Your task to perform on an android device: turn off data saver in the chrome app Image 0: 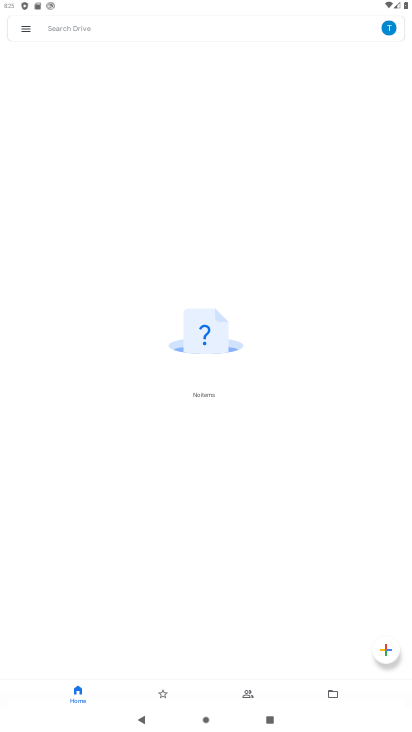
Step 0: press home button
Your task to perform on an android device: turn off data saver in the chrome app Image 1: 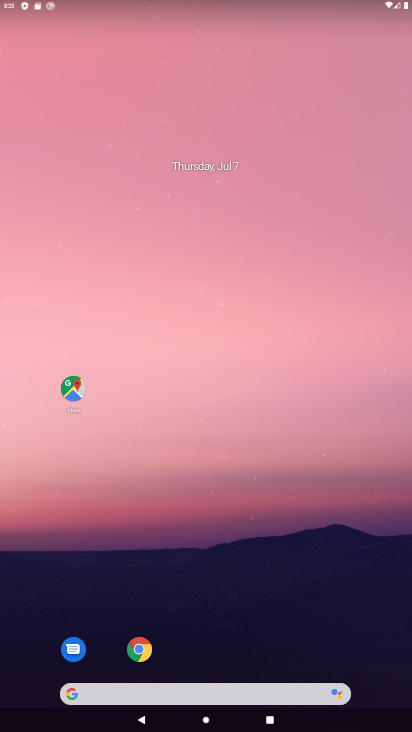
Step 1: drag from (134, 653) to (255, 110)
Your task to perform on an android device: turn off data saver in the chrome app Image 2: 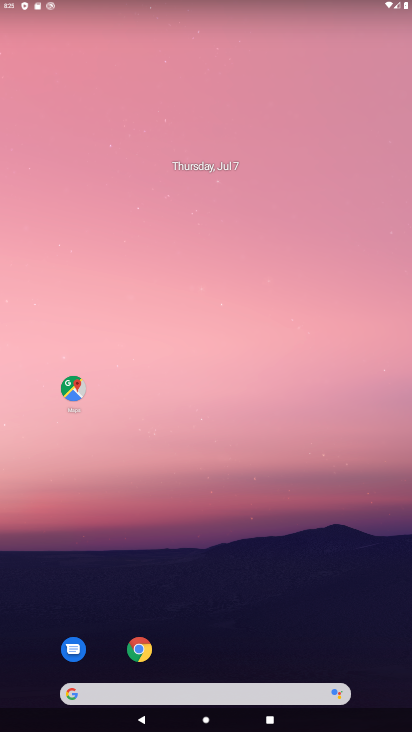
Step 2: click (141, 656)
Your task to perform on an android device: turn off data saver in the chrome app Image 3: 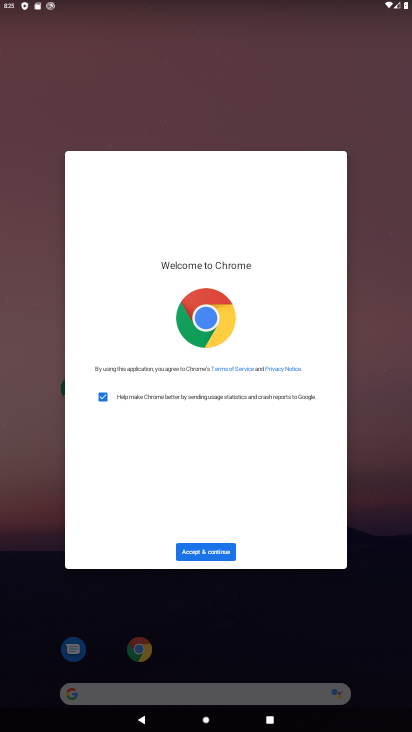
Step 3: click (226, 547)
Your task to perform on an android device: turn off data saver in the chrome app Image 4: 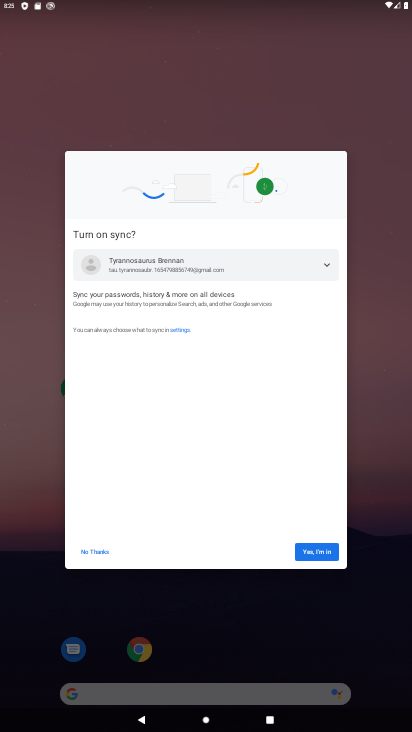
Step 4: click (306, 546)
Your task to perform on an android device: turn off data saver in the chrome app Image 5: 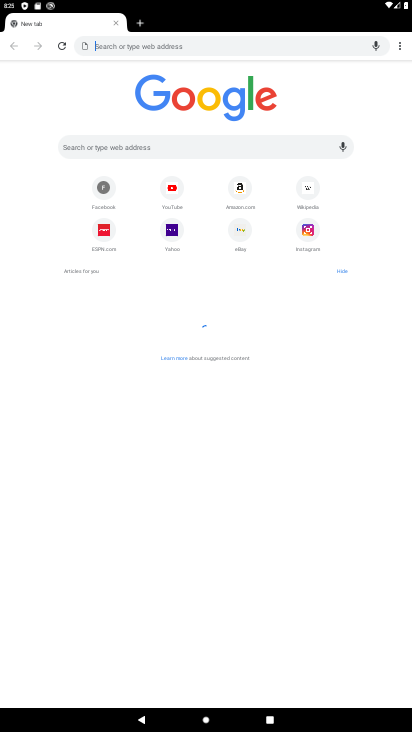
Step 5: drag from (406, 39) to (350, 217)
Your task to perform on an android device: turn off data saver in the chrome app Image 6: 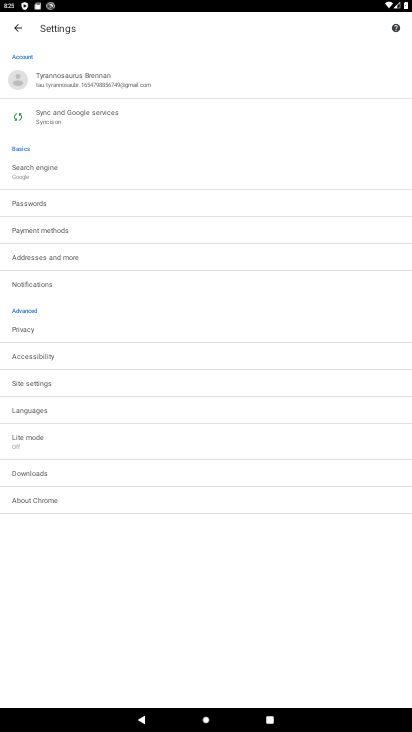
Step 6: click (53, 442)
Your task to perform on an android device: turn off data saver in the chrome app Image 7: 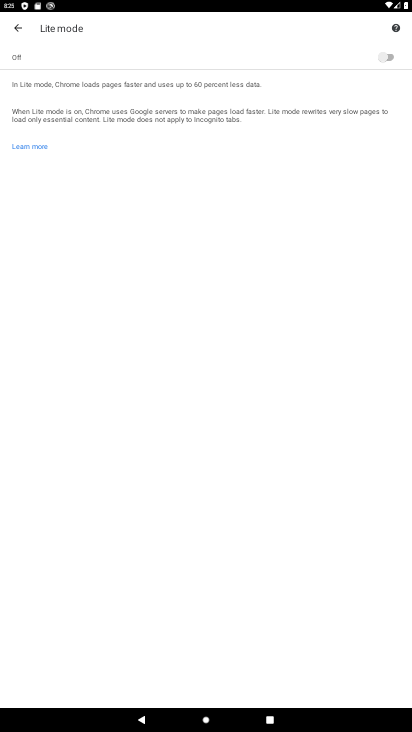
Step 7: task complete